Your task to perform on an android device: turn off wifi Image 0: 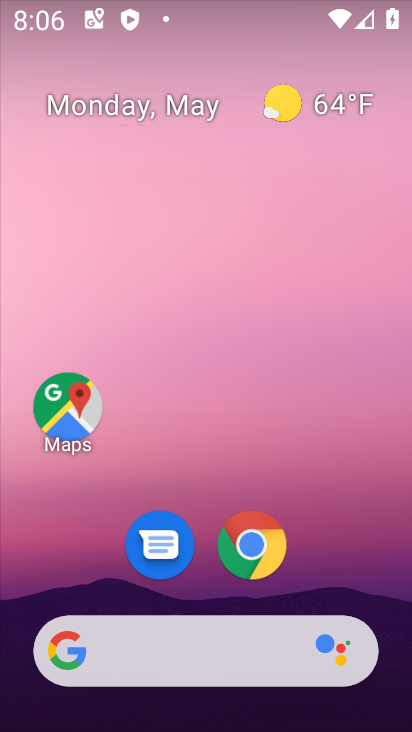
Step 0: drag from (187, 644) to (169, 30)
Your task to perform on an android device: turn off wifi Image 1: 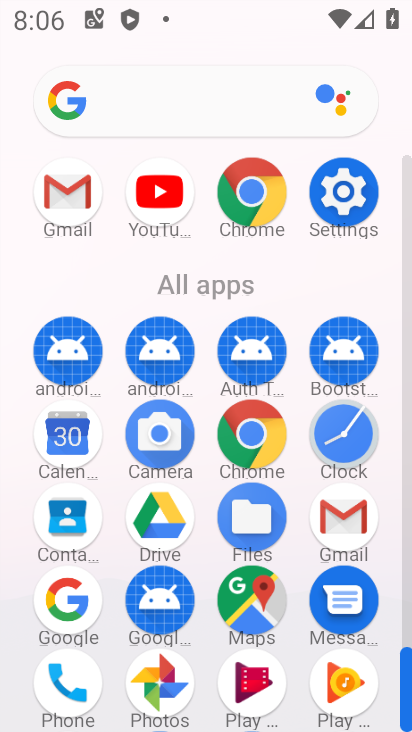
Step 1: click (347, 186)
Your task to perform on an android device: turn off wifi Image 2: 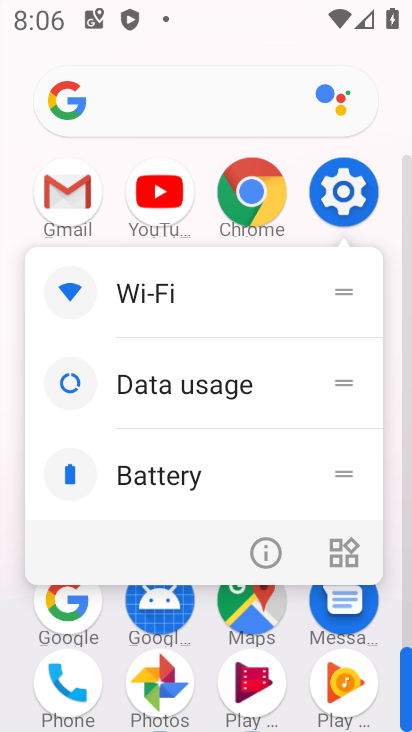
Step 2: click (160, 285)
Your task to perform on an android device: turn off wifi Image 3: 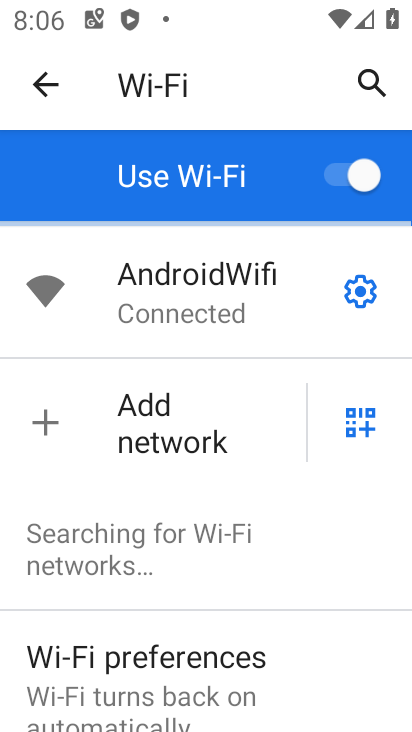
Step 3: click (373, 171)
Your task to perform on an android device: turn off wifi Image 4: 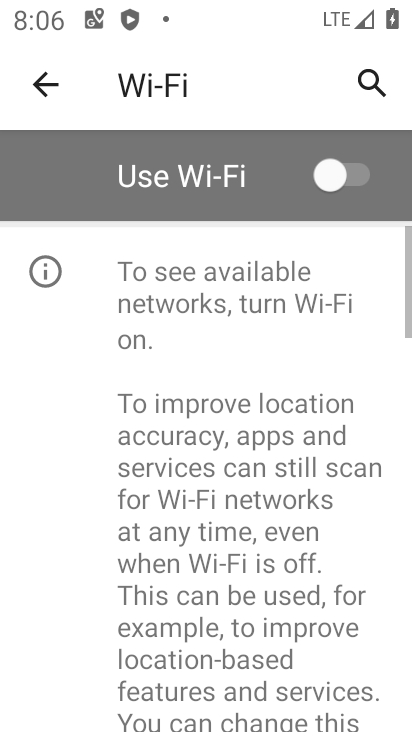
Step 4: task complete